Your task to perform on an android device: open app "Google Play Music" (install if not already installed) Image 0: 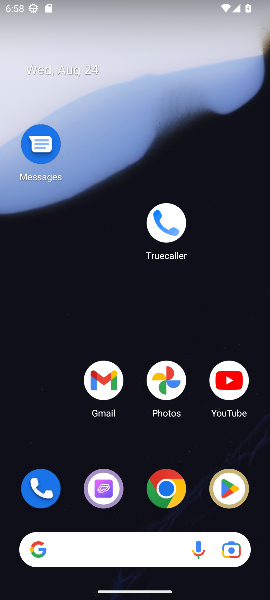
Step 0: click (239, 488)
Your task to perform on an android device: open app "Google Play Music" (install if not already installed) Image 1: 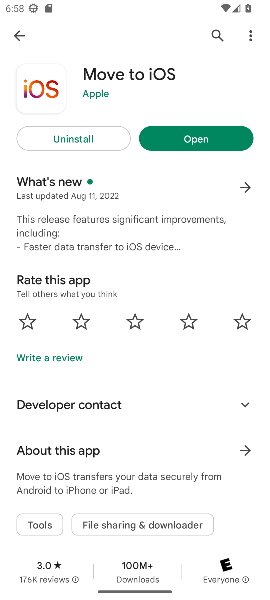
Step 1: click (213, 23)
Your task to perform on an android device: open app "Google Play Music" (install if not already installed) Image 2: 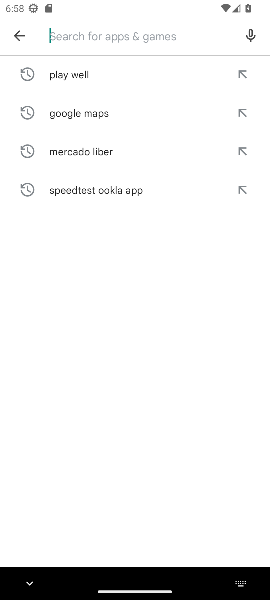
Step 2: type "google play misic"
Your task to perform on an android device: open app "Google Play Music" (install if not already installed) Image 3: 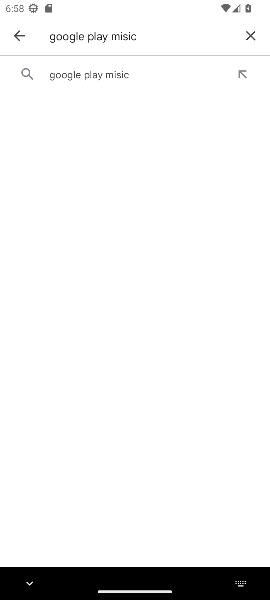
Step 3: click (109, 68)
Your task to perform on an android device: open app "Google Play Music" (install if not already installed) Image 4: 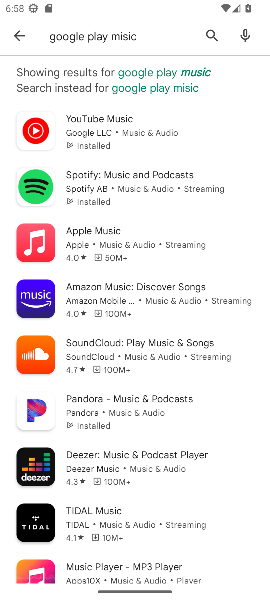
Step 4: click (121, 147)
Your task to perform on an android device: open app "Google Play Music" (install if not already installed) Image 5: 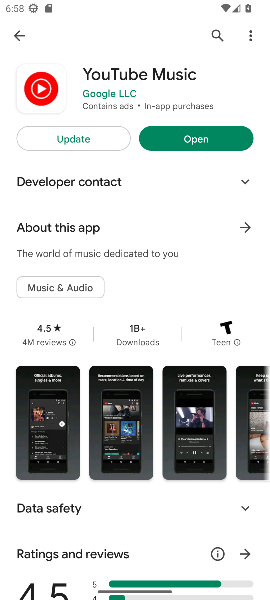
Step 5: click (185, 150)
Your task to perform on an android device: open app "Google Play Music" (install if not already installed) Image 6: 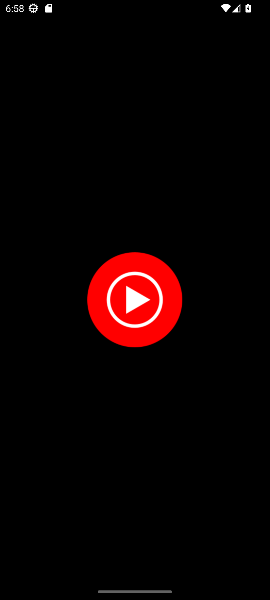
Step 6: task complete